Your task to perform on an android device: see creations saved in the google photos Image 0: 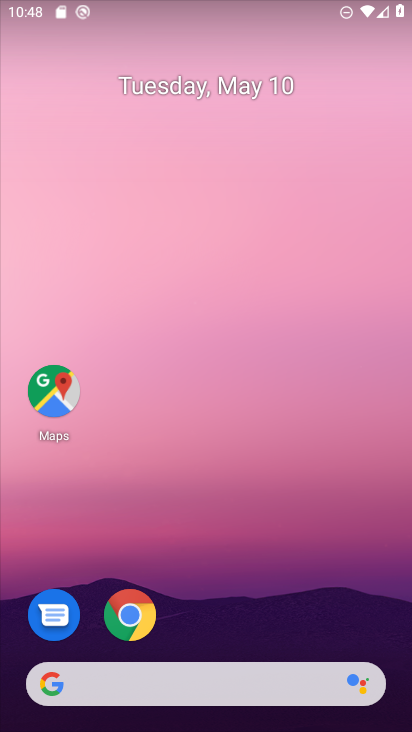
Step 0: drag from (202, 633) to (272, 246)
Your task to perform on an android device: see creations saved in the google photos Image 1: 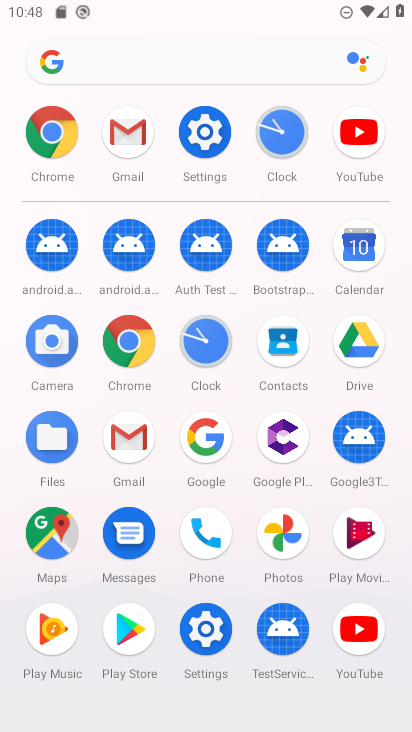
Step 1: click (266, 540)
Your task to perform on an android device: see creations saved in the google photos Image 2: 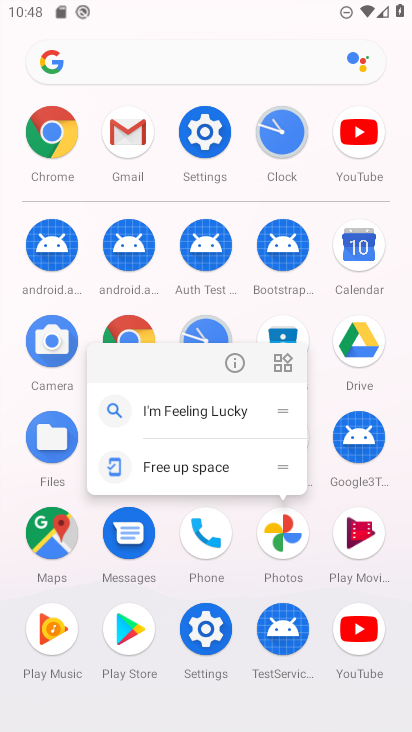
Step 2: click (233, 354)
Your task to perform on an android device: see creations saved in the google photos Image 3: 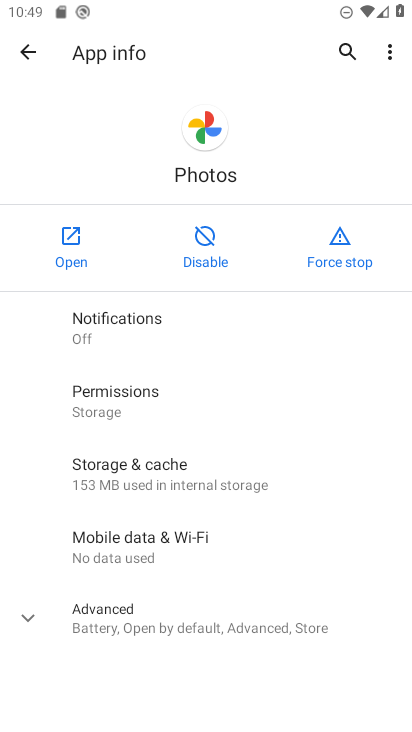
Step 3: click (81, 226)
Your task to perform on an android device: see creations saved in the google photos Image 4: 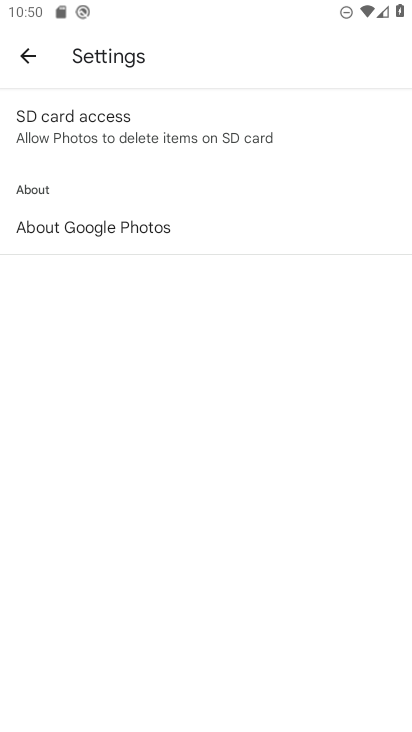
Step 4: drag from (198, 499) to (235, 306)
Your task to perform on an android device: see creations saved in the google photos Image 5: 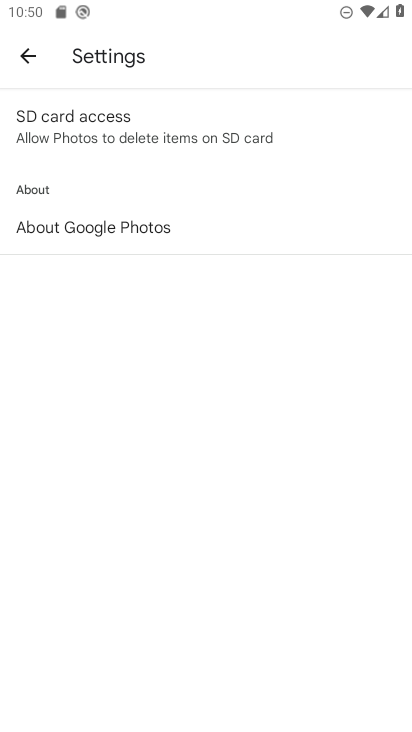
Step 5: press home button
Your task to perform on an android device: see creations saved in the google photos Image 6: 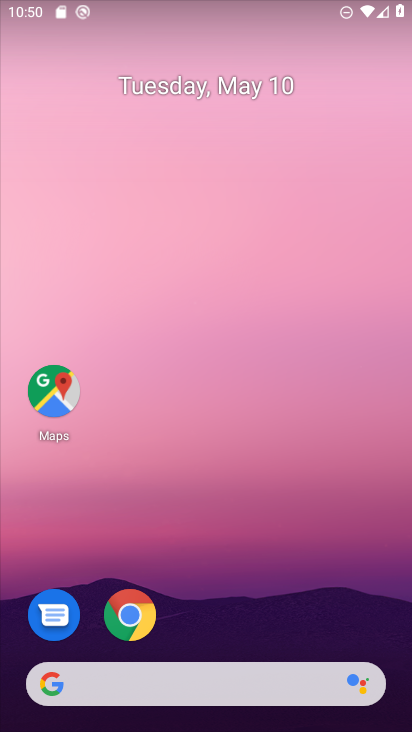
Step 6: drag from (215, 569) to (284, 54)
Your task to perform on an android device: see creations saved in the google photos Image 7: 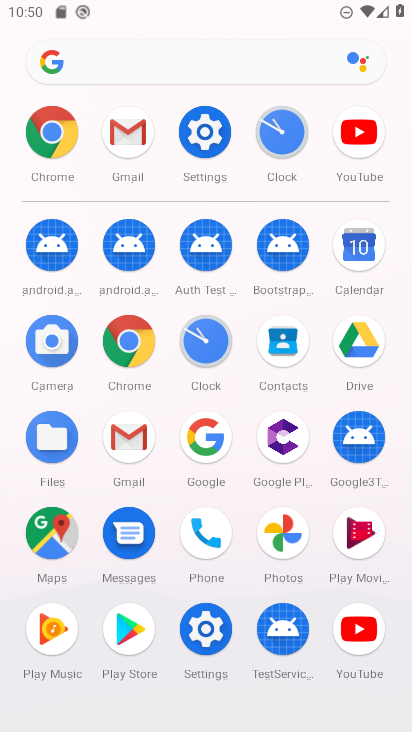
Step 7: click (290, 530)
Your task to perform on an android device: see creations saved in the google photos Image 8: 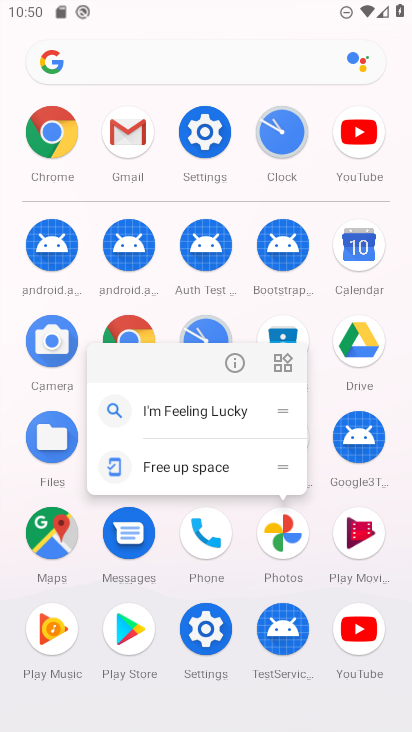
Step 8: click (240, 361)
Your task to perform on an android device: see creations saved in the google photos Image 9: 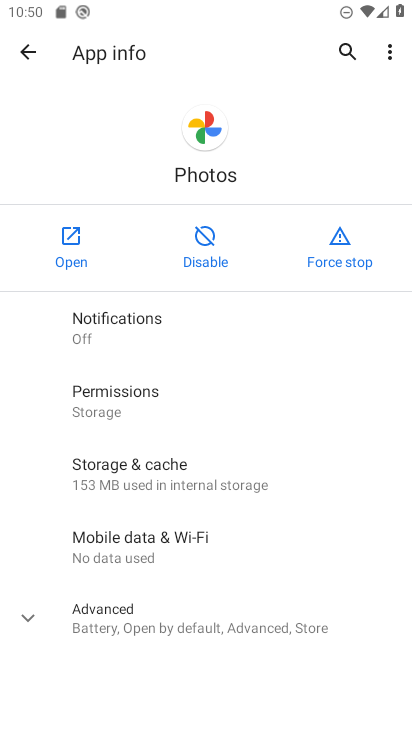
Step 9: click (63, 235)
Your task to perform on an android device: see creations saved in the google photos Image 10: 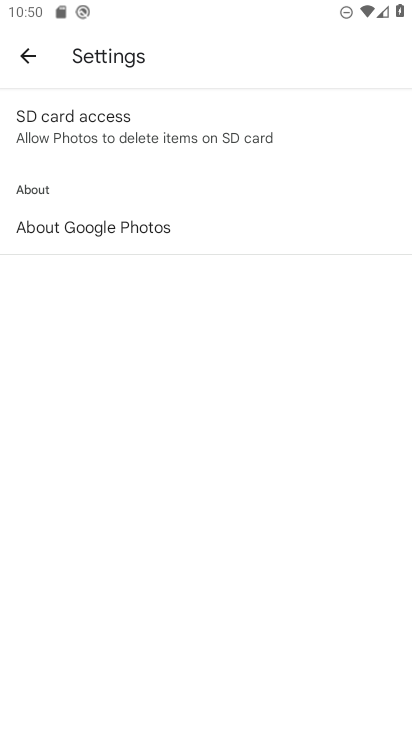
Step 10: click (21, 55)
Your task to perform on an android device: see creations saved in the google photos Image 11: 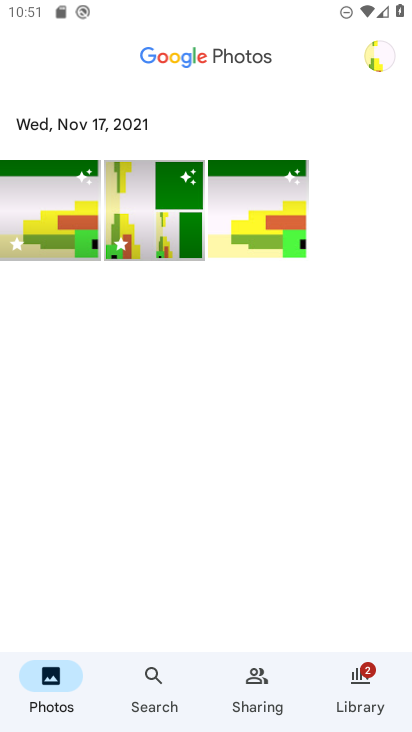
Step 11: click (145, 694)
Your task to perform on an android device: see creations saved in the google photos Image 12: 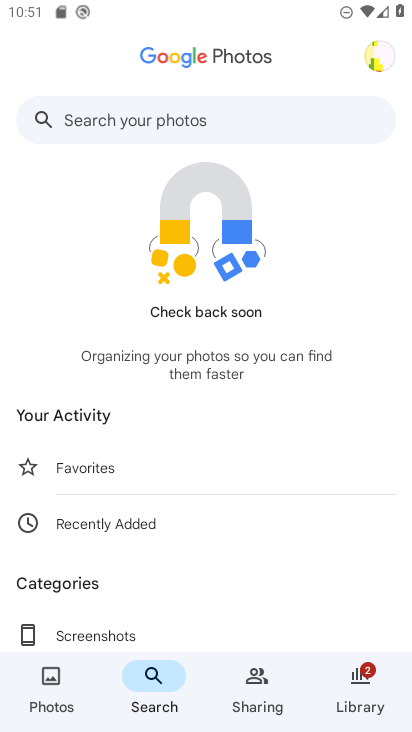
Step 12: drag from (193, 527) to (299, 110)
Your task to perform on an android device: see creations saved in the google photos Image 13: 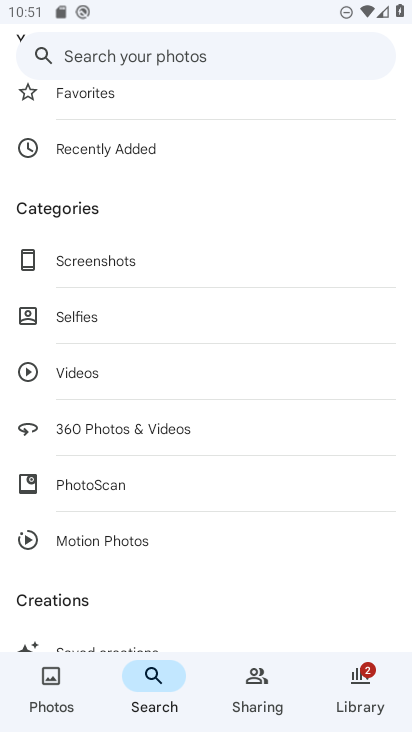
Step 13: drag from (240, 496) to (351, 112)
Your task to perform on an android device: see creations saved in the google photos Image 14: 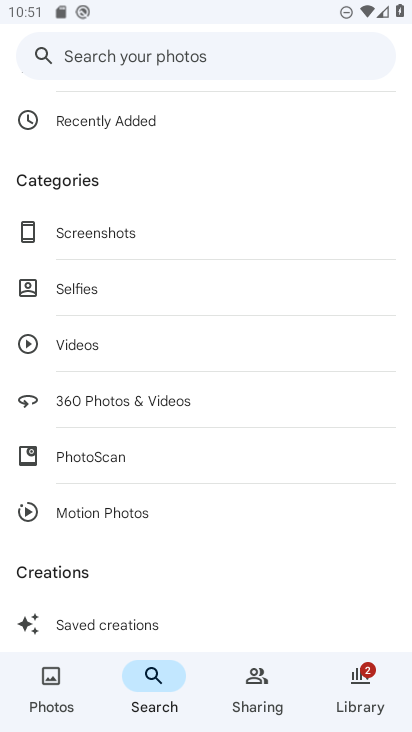
Step 14: click (99, 627)
Your task to perform on an android device: see creations saved in the google photos Image 15: 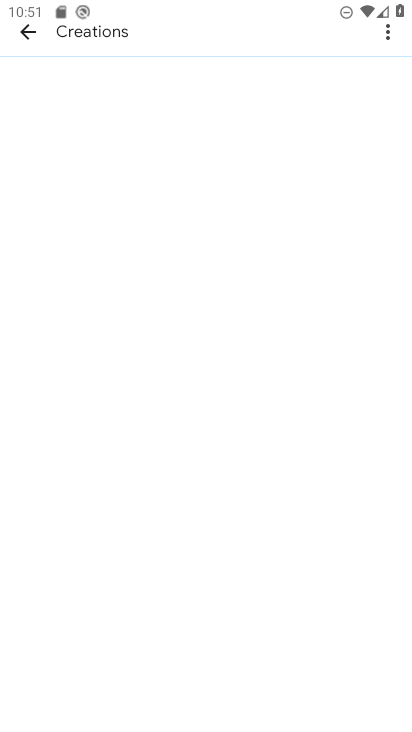
Step 15: task complete